Your task to perform on an android device: delete a single message in the gmail app Image 0: 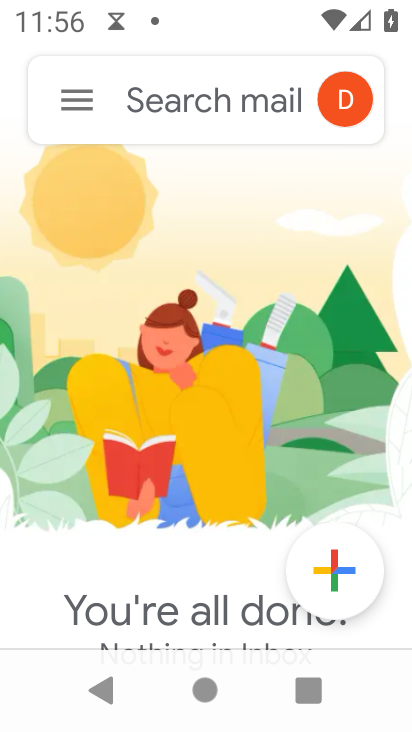
Step 0: click (75, 103)
Your task to perform on an android device: delete a single message in the gmail app Image 1: 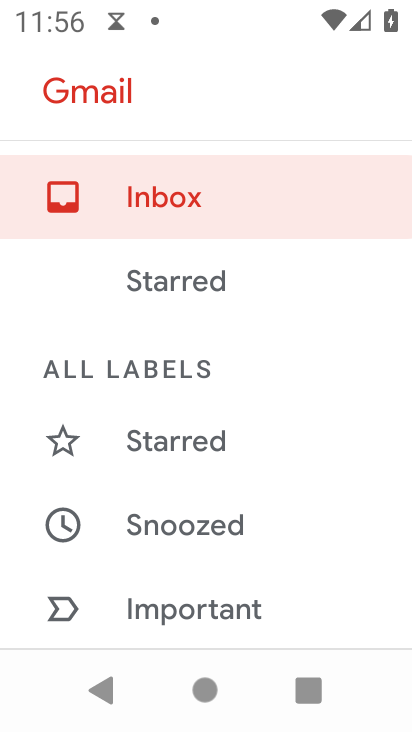
Step 1: drag from (245, 591) to (230, 145)
Your task to perform on an android device: delete a single message in the gmail app Image 2: 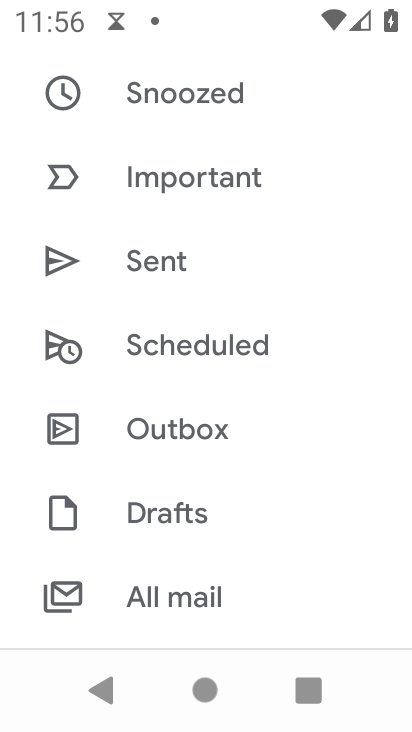
Step 2: drag from (222, 208) to (219, 603)
Your task to perform on an android device: delete a single message in the gmail app Image 3: 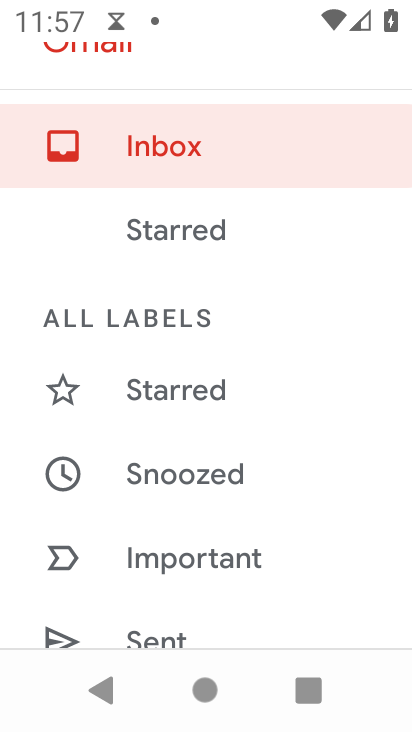
Step 3: click (162, 151)
Your task to perform on an android device: delete a single message in the gmail app Image 4: 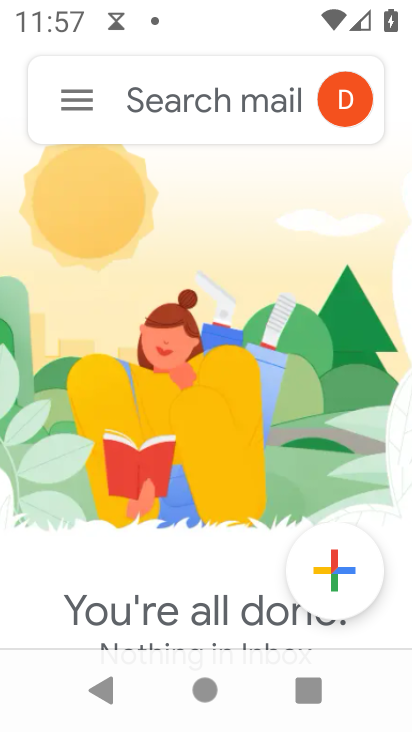
Step 4: task complete